Your task to perform on an android device: all mails in gmail Image 0: 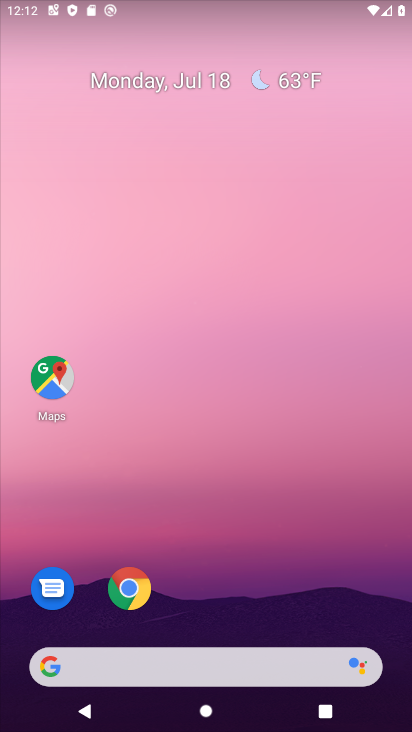
Step 0: drag from (228, 460) to (221, 69)
Your task to perform on an android device: all mails in gmail Image 1: 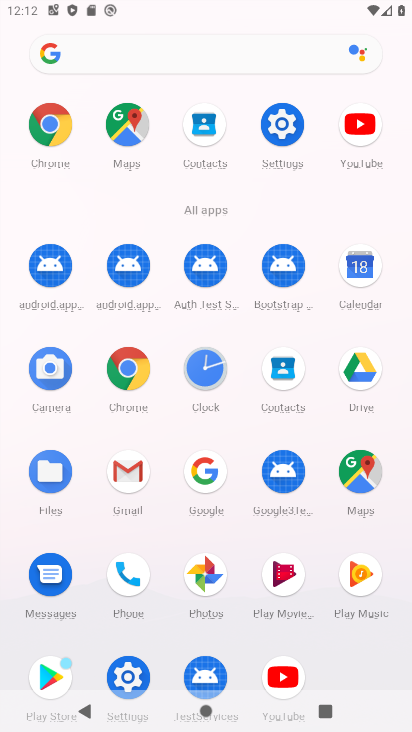
Step 1: click (136, 475)
Your task to perform on an android device: all mails in gmail Image 2: 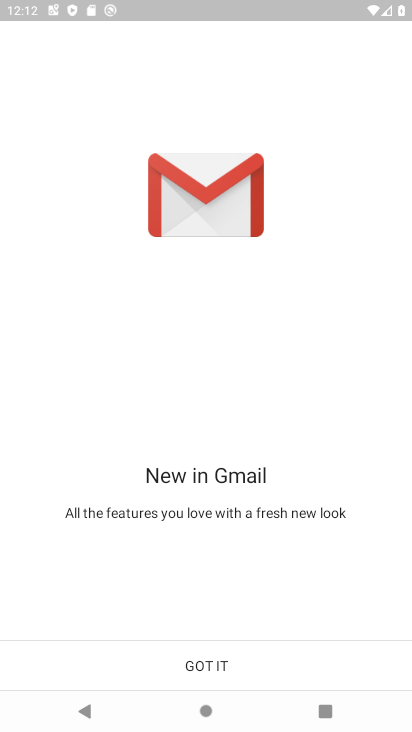
Step 2: click (183, 662)
Your task to perform on an android device: all mails in gmail Image 3: 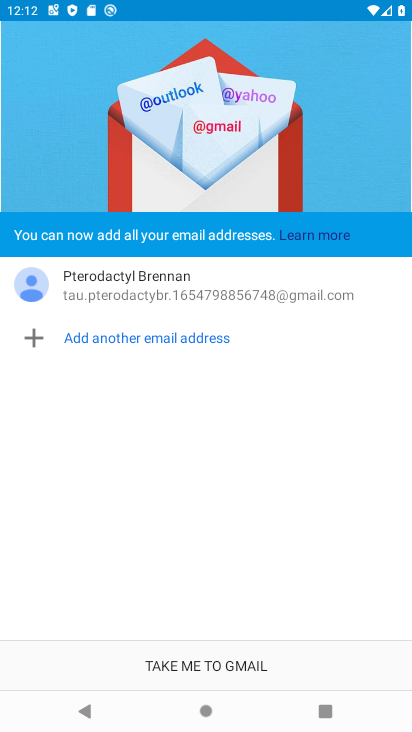
Step 3: click (223, 662)
Your task to perform on an android device: all mails in gmail Image 4: 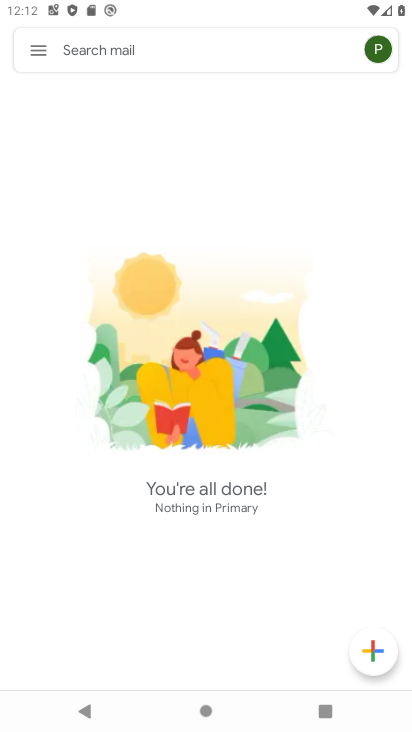
Step 4: click (41, 46)
Your task to perform on an android device: all mails in gmail Image 5: 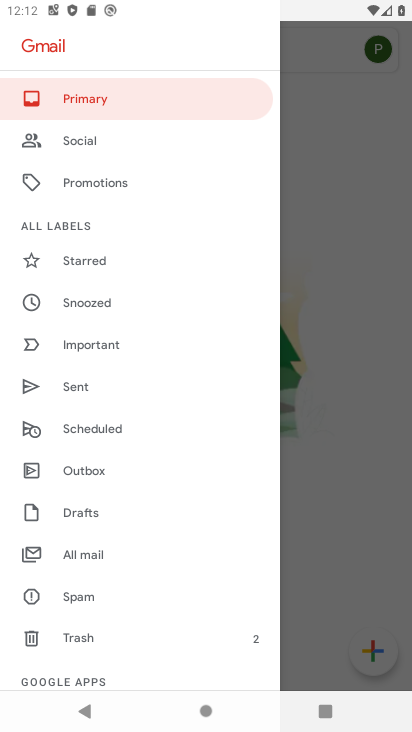
Step 5: click (70, 552)
Your task to perform on an android device: all mails in gmail Image 6: 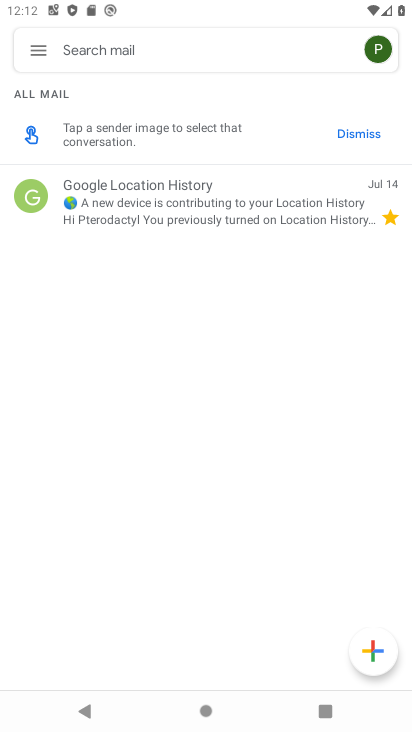
Step 6: click (30, 53)
Your task to perform on an android device: all mails in gmail Image 7: 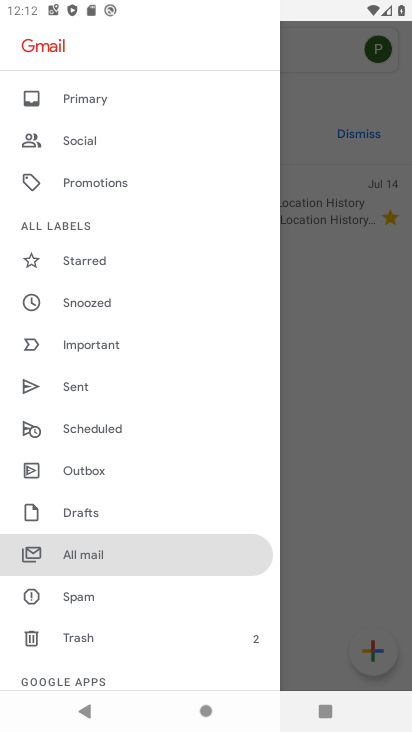
Step 7: click (95, 553)
Your task to perform on an android device: all mails in gmail Image 8: 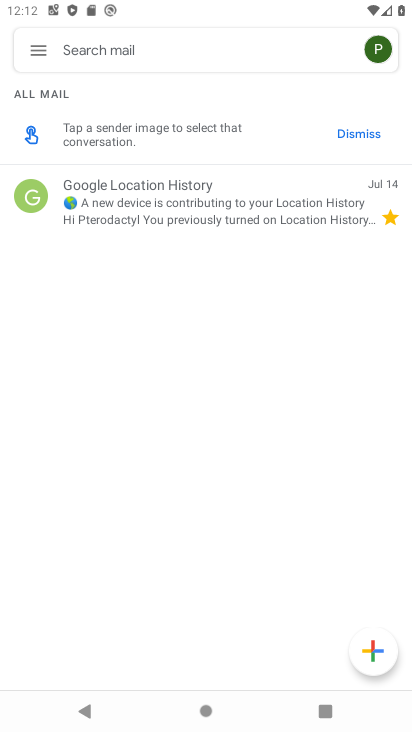
Step 8: task complete